Your task to perform on an android device: open app "Reddit" (install if not already installed) and enter user name: "issues@yahoo.com" and password: "belt" Image 0: 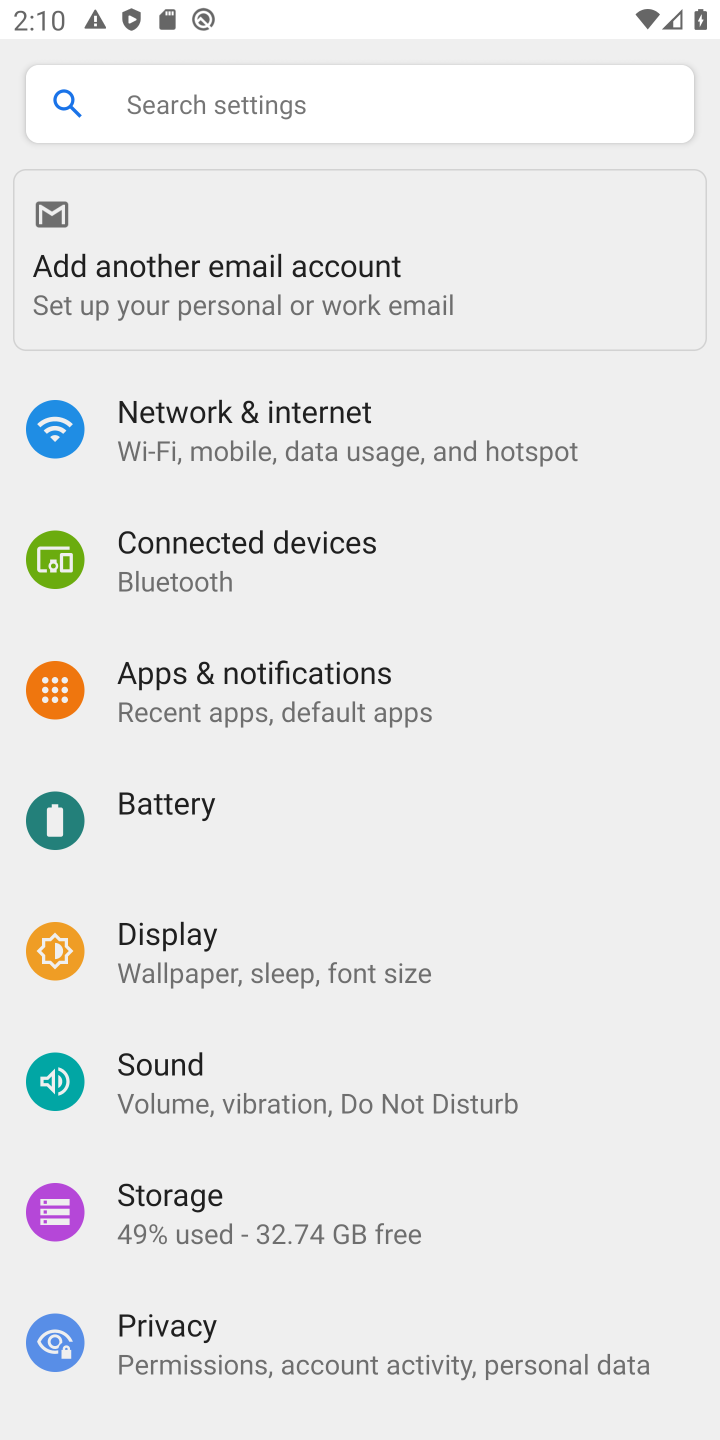
Step 0: press home button
Your task to perform on an android device: open app "Reddit" (install if not already installed) and enter user name: "issues@yahoo.com" and password: "belt" Image 1: 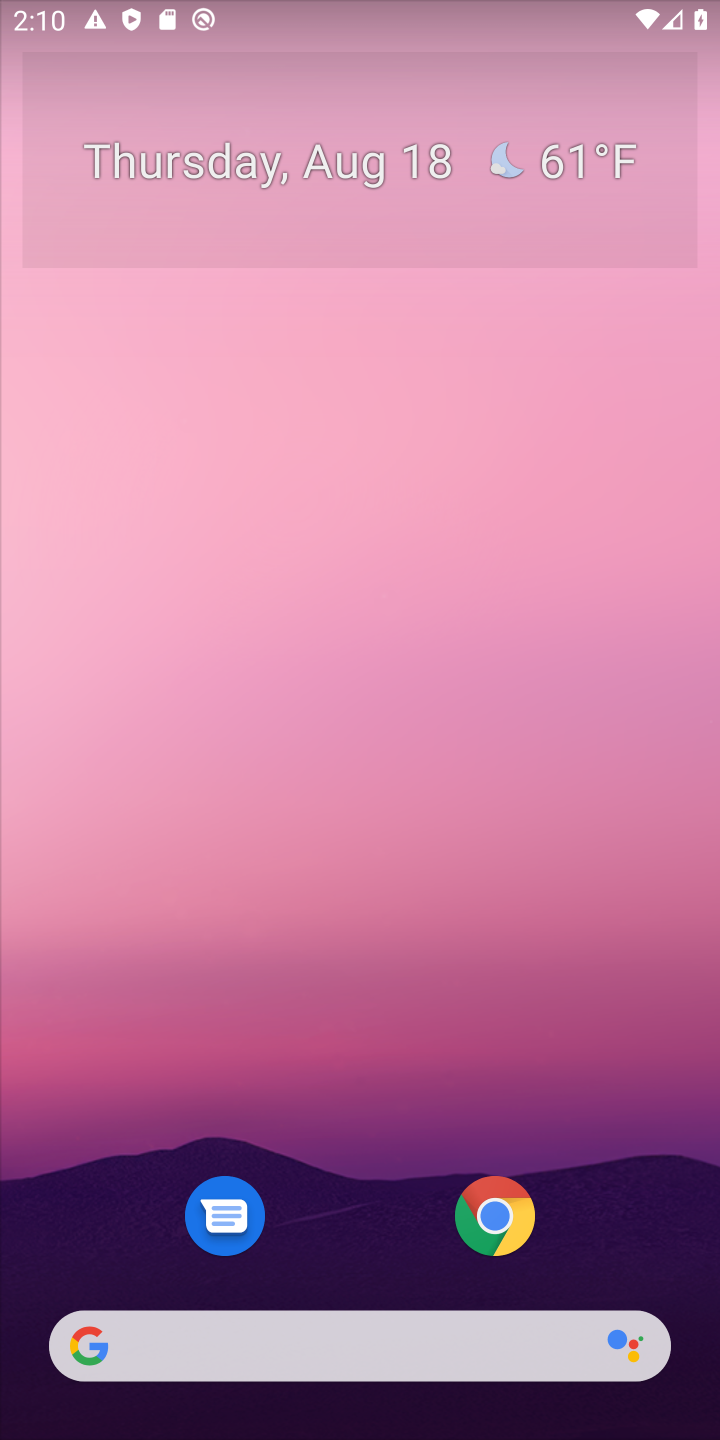
Step 1: drag from (575, 1042) to (568, 226)
Your task to perform on an android device: open app "Reddit" (install if not already installed) and enter user name: "issues@yahoo.com" and password: "belt" Image 2: 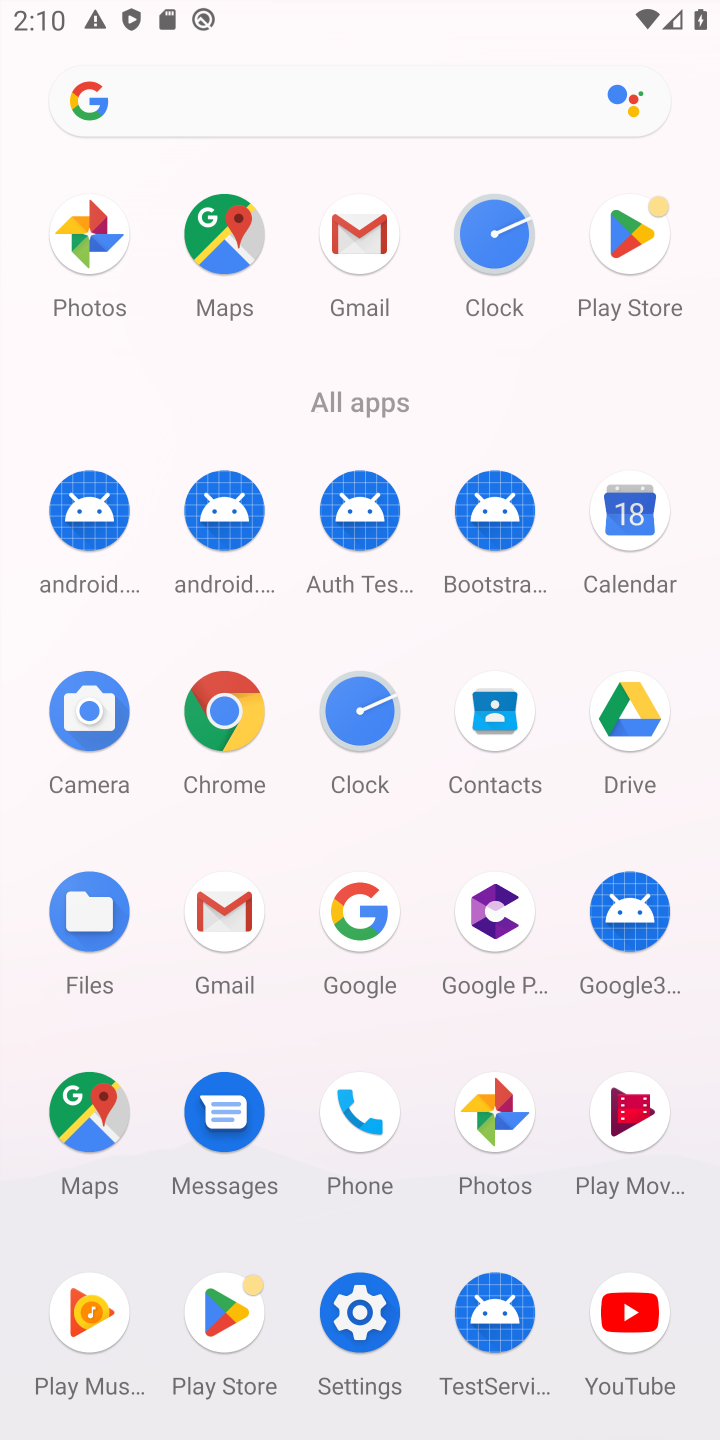
Step 2: click (85, 1316)
Your task to perform on an android device: open app "Reddit" (install if not already installed) and enter user name: "issues@yahoo.com" and password: "belt" Image 3: 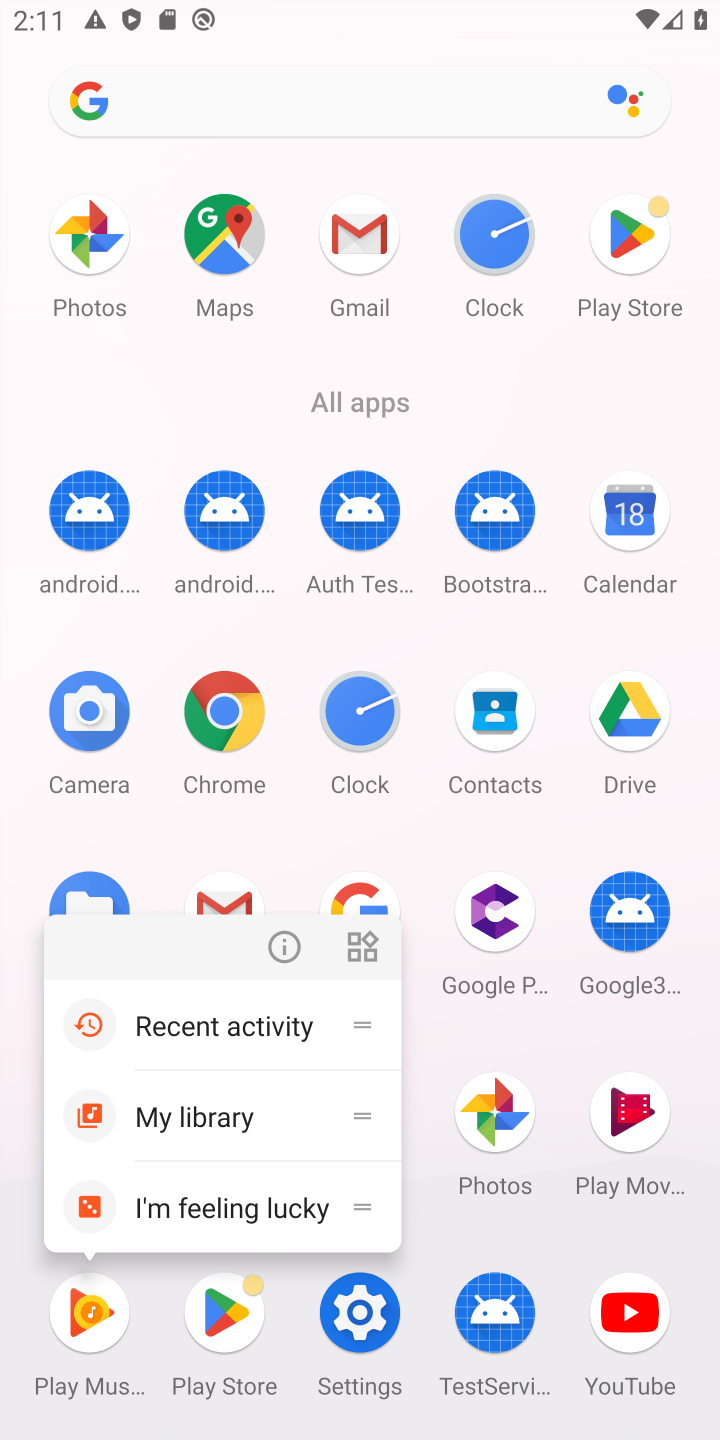
Step 3: click (231, 1317)
Your task to perform on an android device: open app "Reddit" (install if not already installed) and enter user name: "issues@yahoo.com" and password: "belt" Image 4: 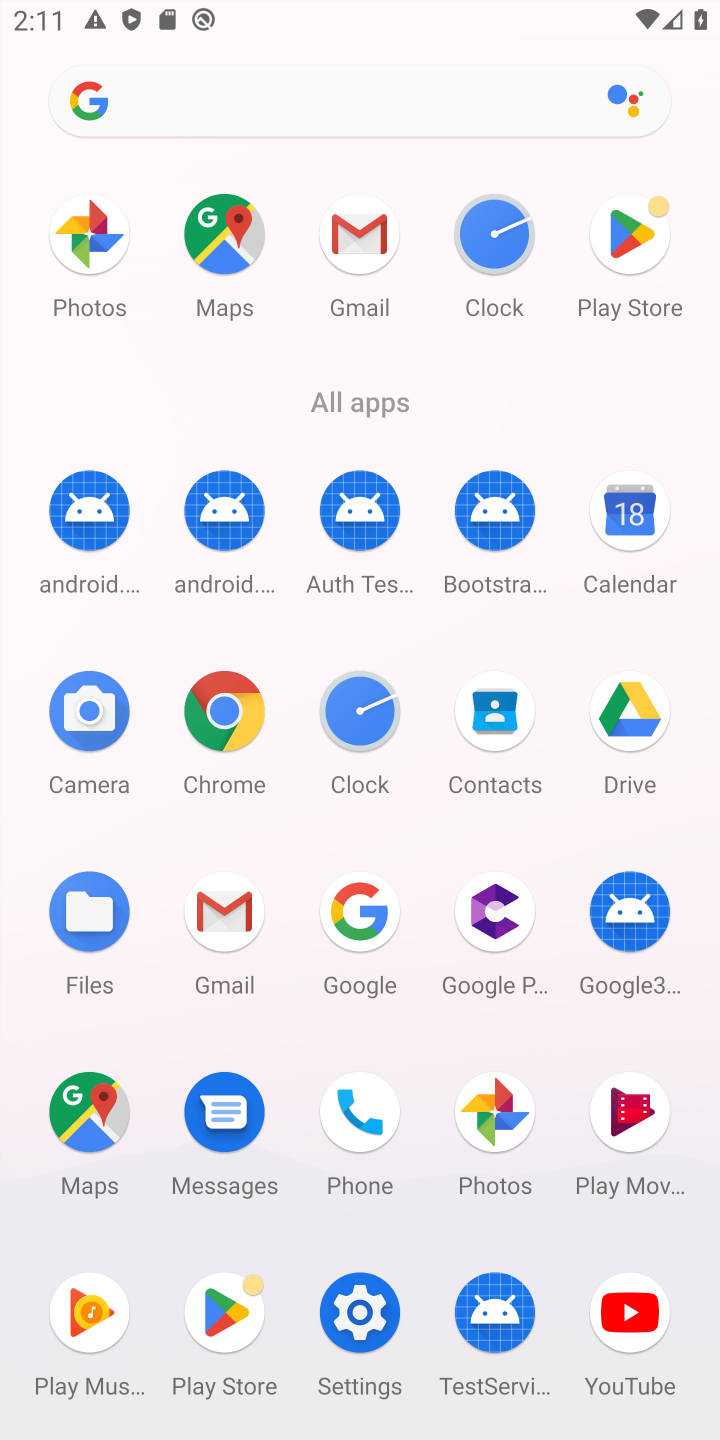
Step 4: click (227, 1308)
Your task to perform on an android device: open app "Reddit" (install if not already installed) and enter user name: "issues@yahoo.com" and password: "belt" Image 5: 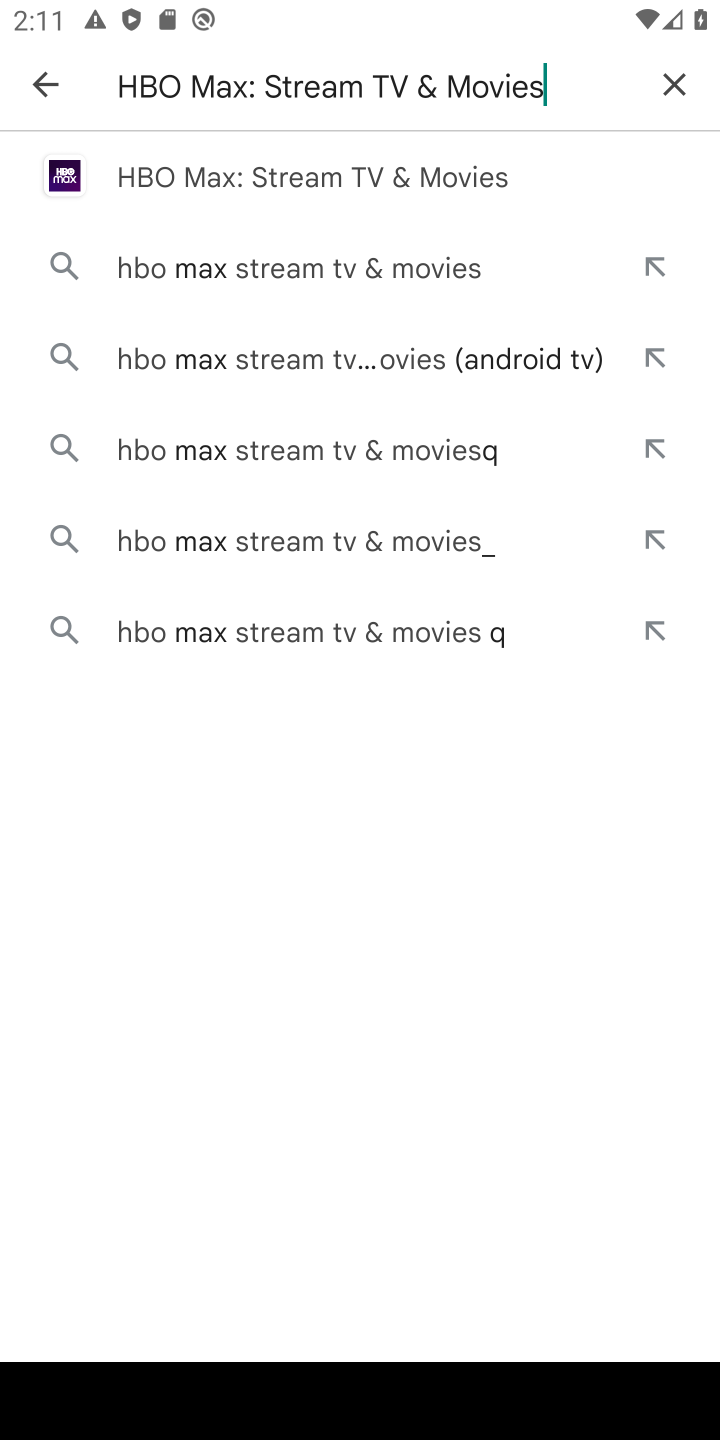
Step 5: click (673, 75)
Your task to perform on an android device: open app "Reddit" (install if not already installed) and enter user name: "issues@yahoo.com" and password: "belt" Image 6: 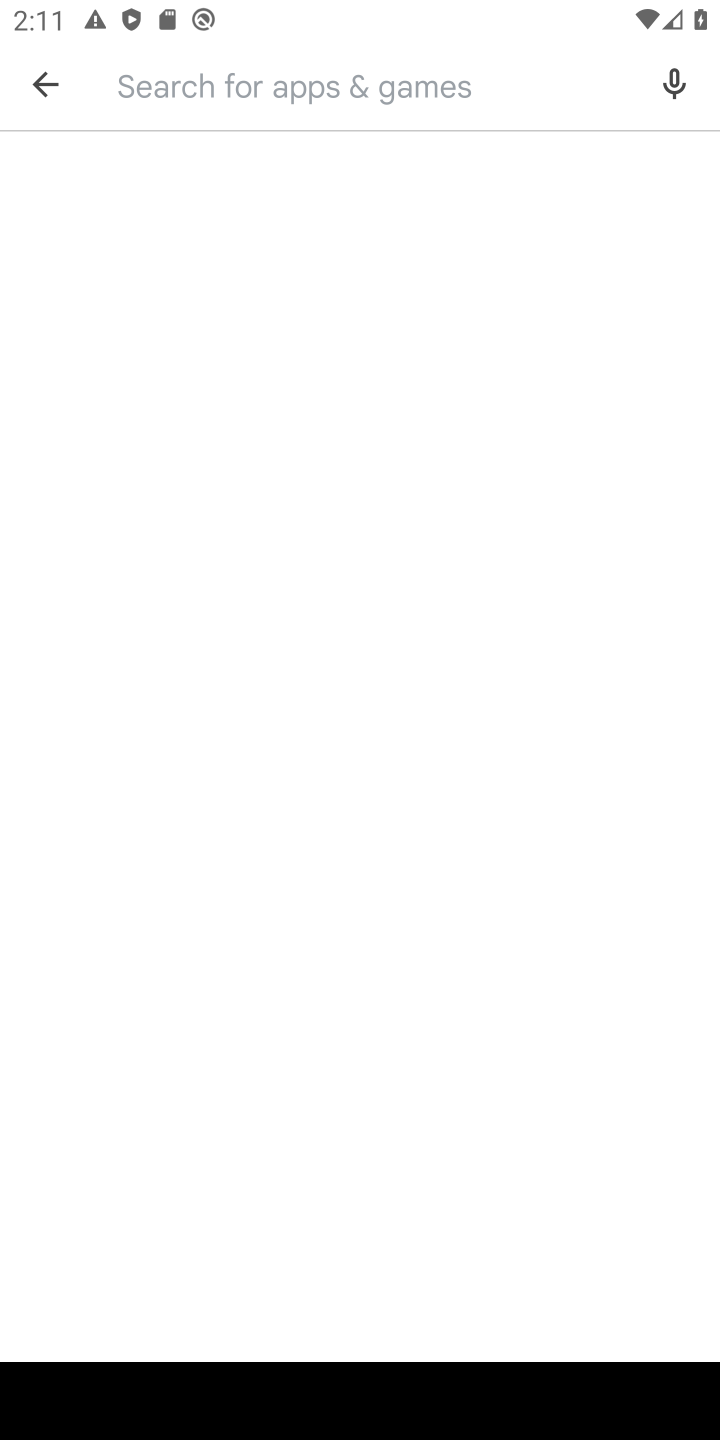
Step 6: type "Reddit"
Your task to perform on an android device: open app "Reddit" (install if not already installed) and enter user name: "issues@yahoo.com" and password: "belt" Image 7: 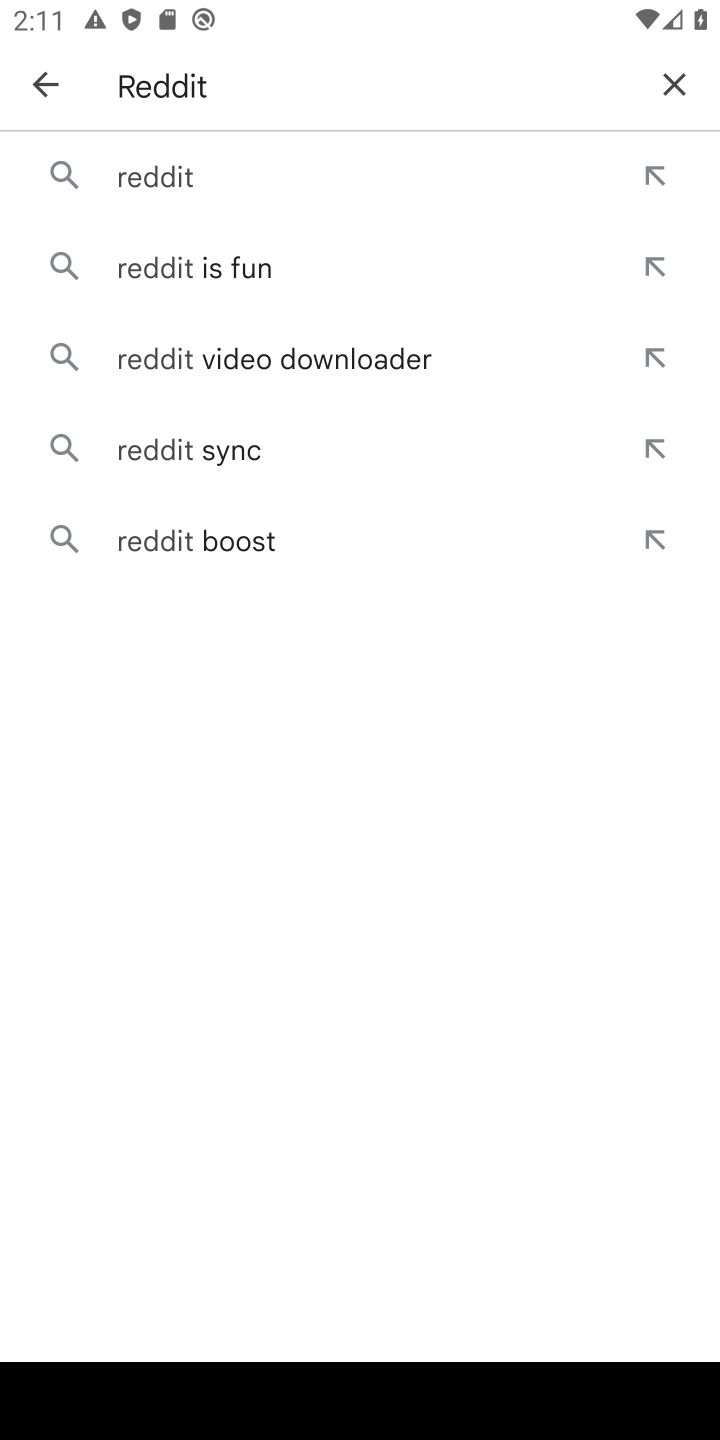
Step 7: click (162, 178)
Your task to perform on an android device: open app "Reddit" (install if not already installed) and enter user name: "issues@yahoo.com" and password: "belt" Image 8: 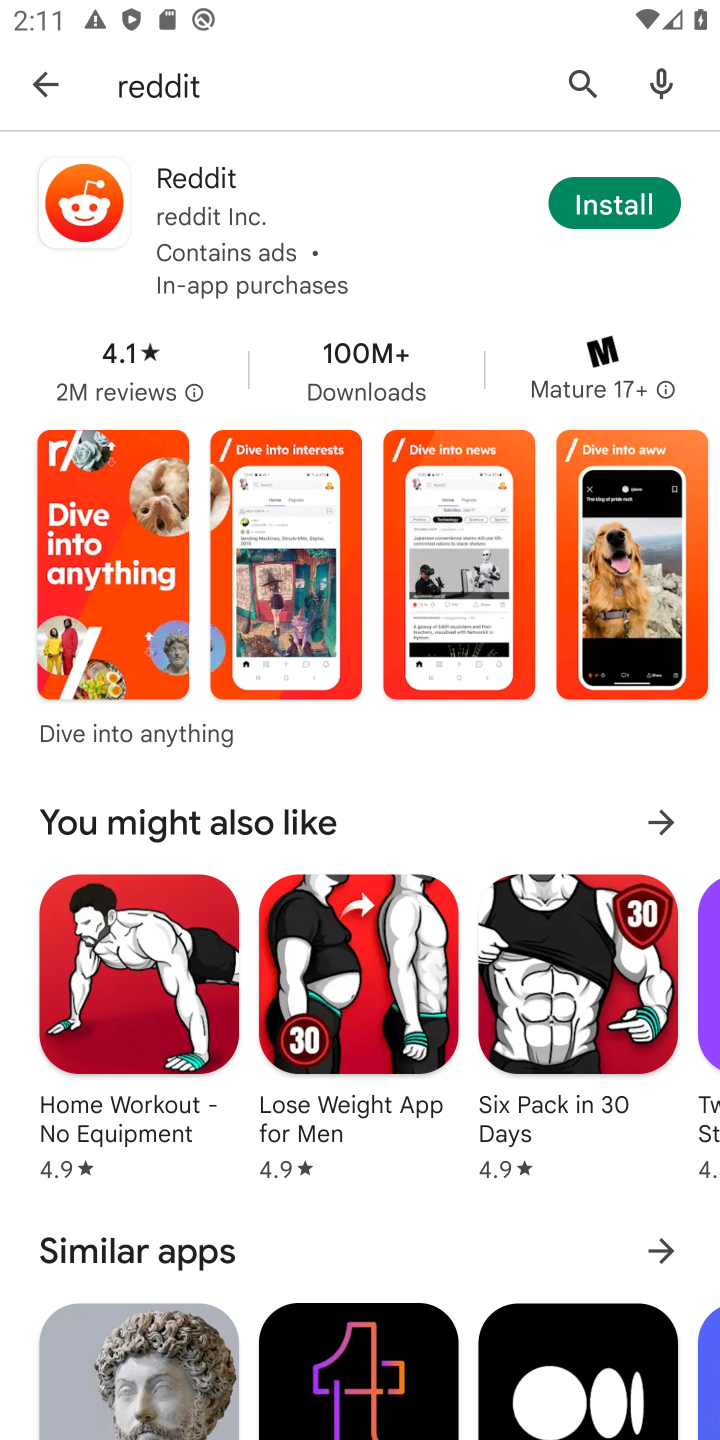
Step 8: click (613, 197)
Your task to perform on an android device: open app "Reddit" (install if not already installed) and enter user name: "issues@yahoo.com" and password: "belt" Image 9: 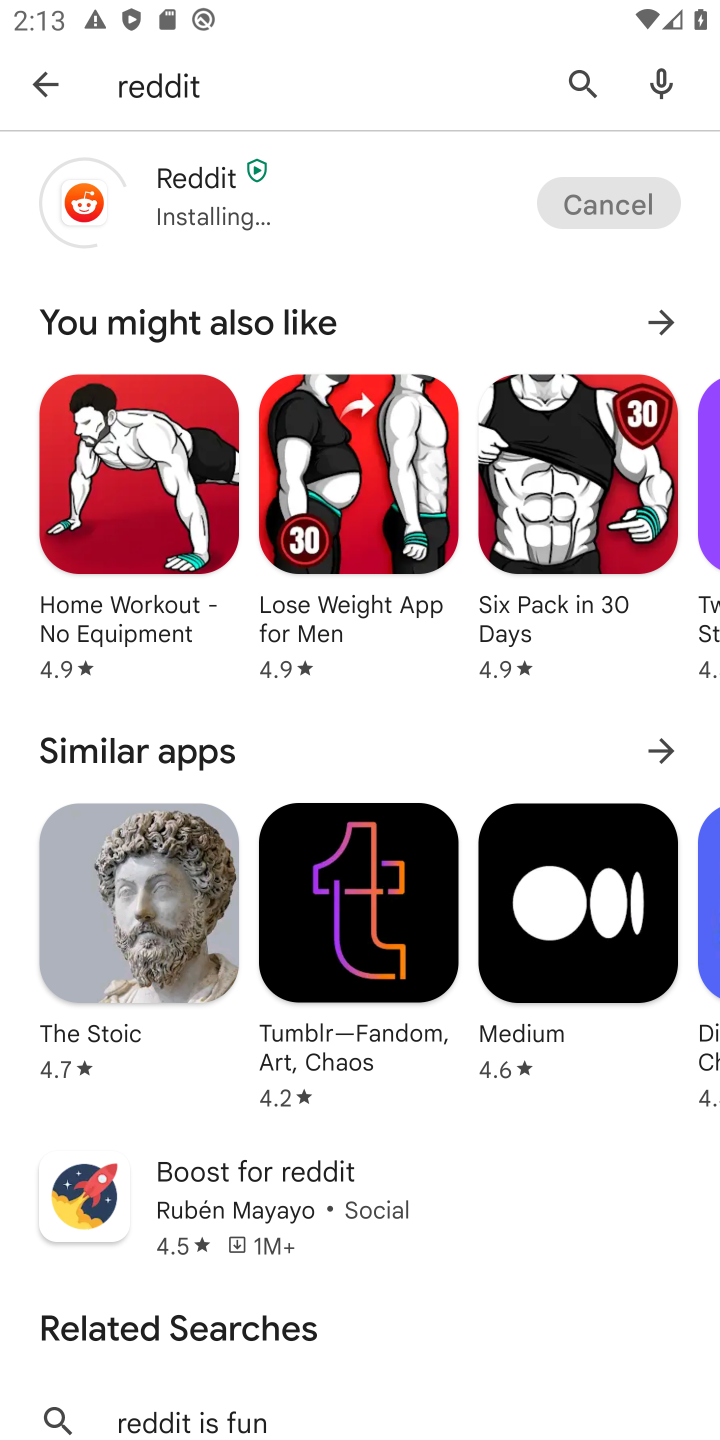
Step 9: drag from (361, 966) to (447, 229)
Your task to perform on an android device: open app "Reddit" (install if not already installed) and enter user name: "issues@yahoo.com" and password: "belt" Image 10: 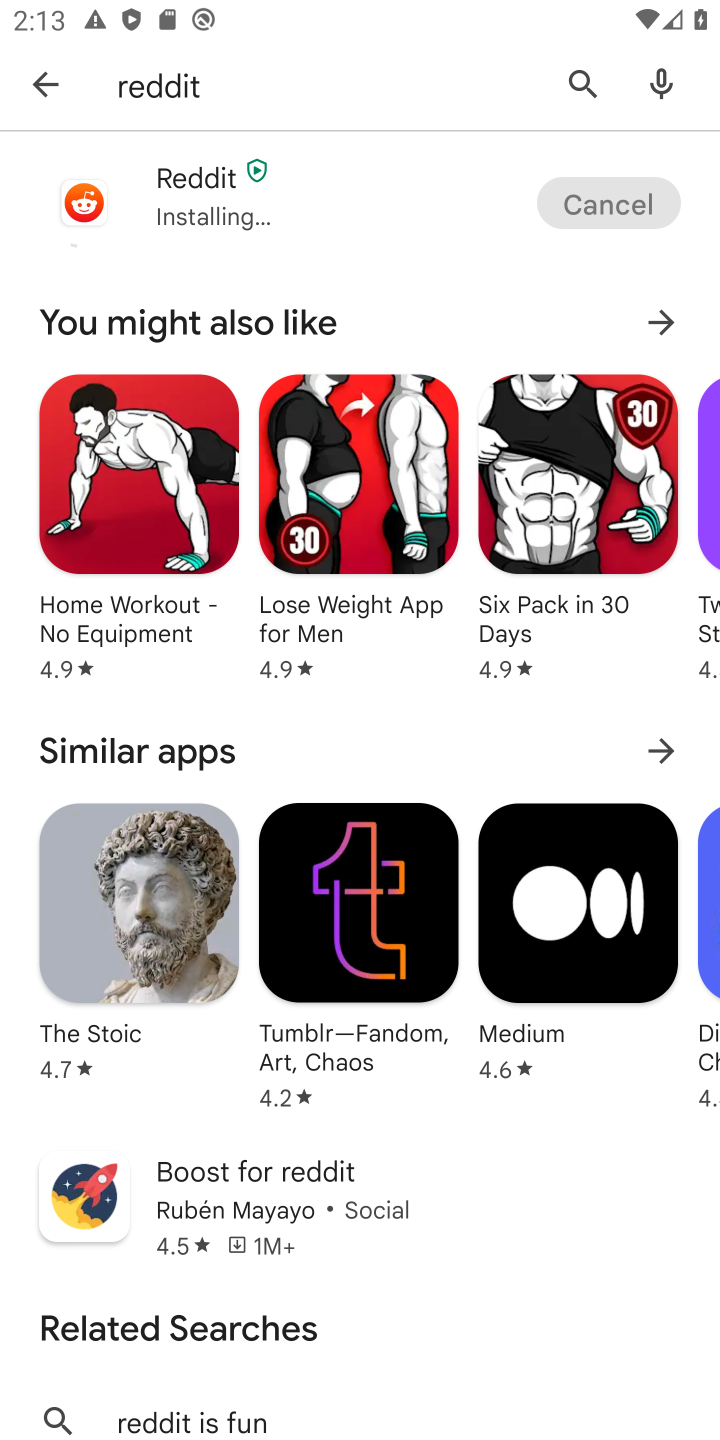
Step 10: click (188, 175)
Your task to perform on an android device: open app "Reddit" (install if not already installed) and enter user name: "issues@yahoo.com" and password: "belt" Image 11: 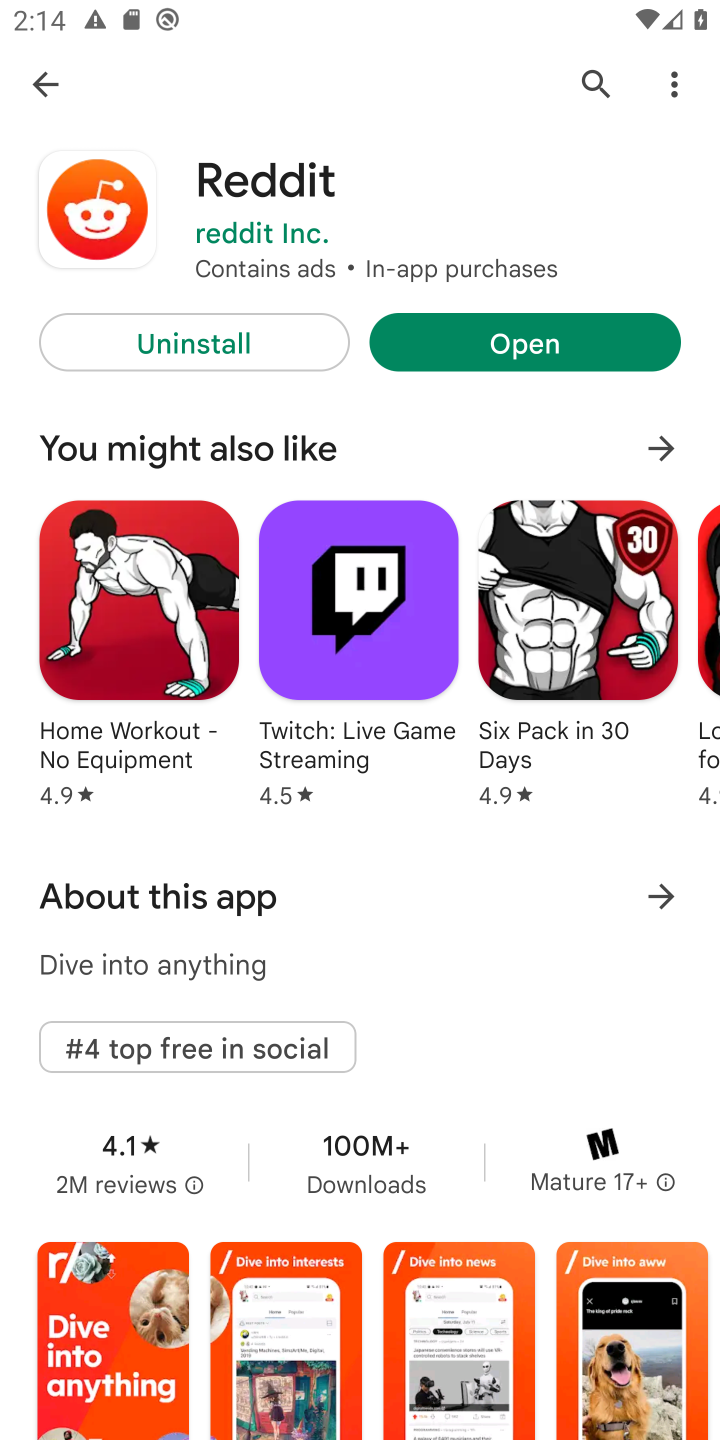
Step 11: click (504, 354)
Your task to perform on an android device: open app "Reddit" (install if not already installed) and enter user name: "issues@yahoo.com" and password: "belt" Image 12: 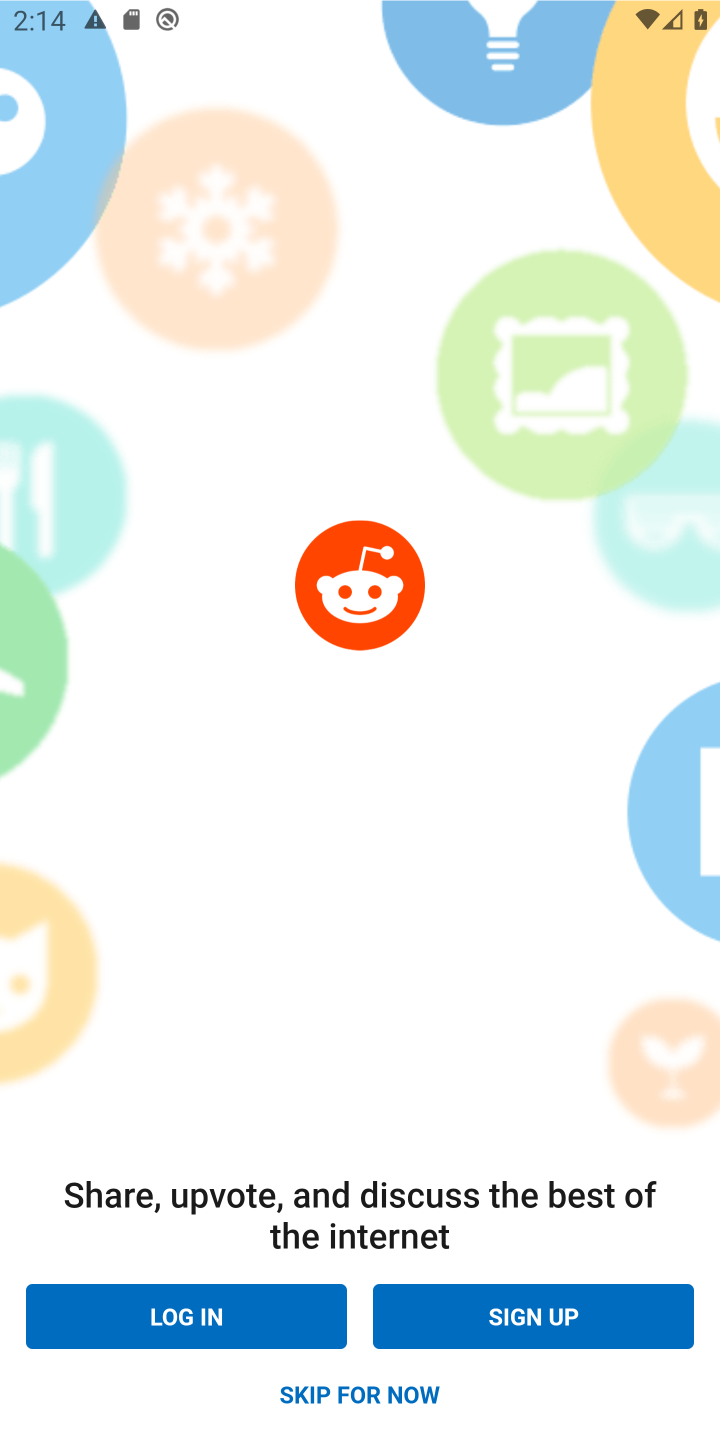
Step 12: click (172, 1310)
Your task to perform on an android device: open app "Reddit" (install if not already installed) and enter user name: "issues@yahoo.com" and password: "belt" Image 13: 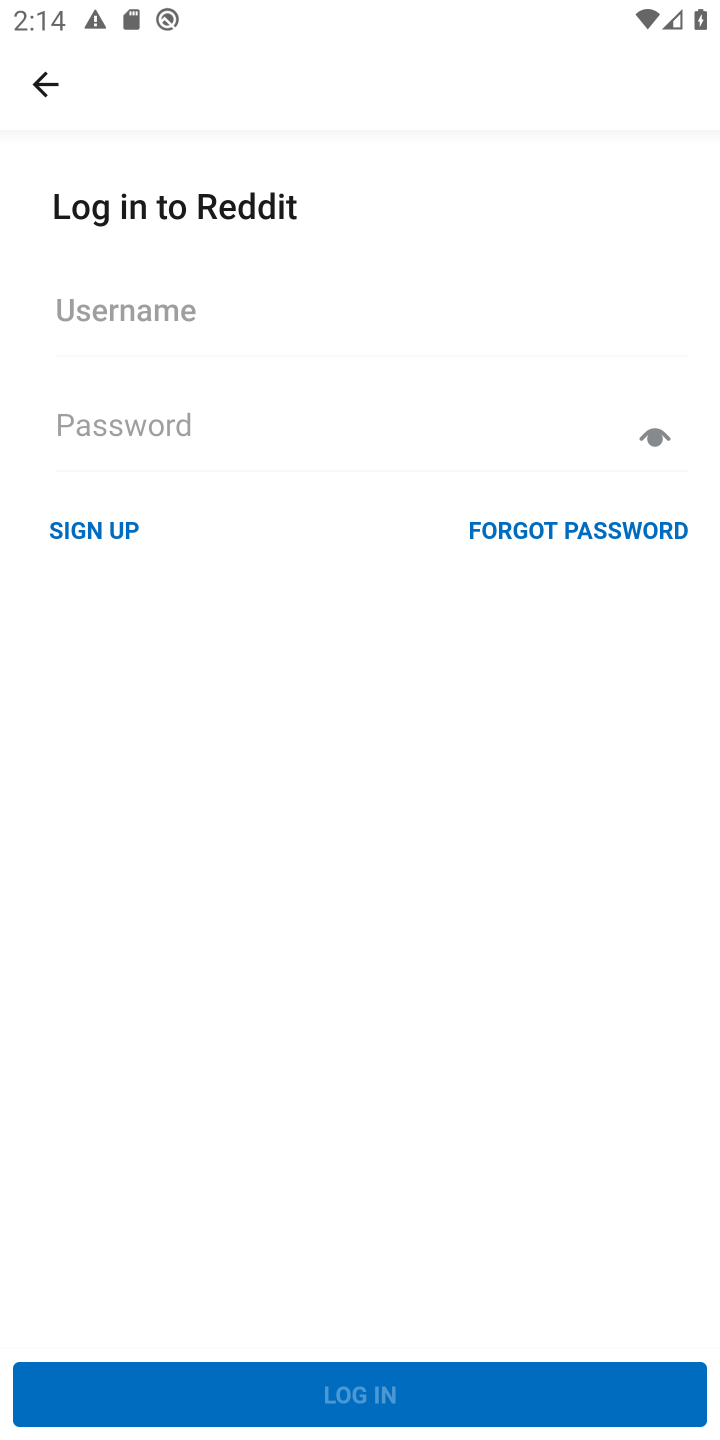
Step 13: click (187, 306)
Your task to perform on an android device: open app "Reddit" (install if not already installed) and enter user name: "issues@yahoo.com" and password: "belt" Image 14: 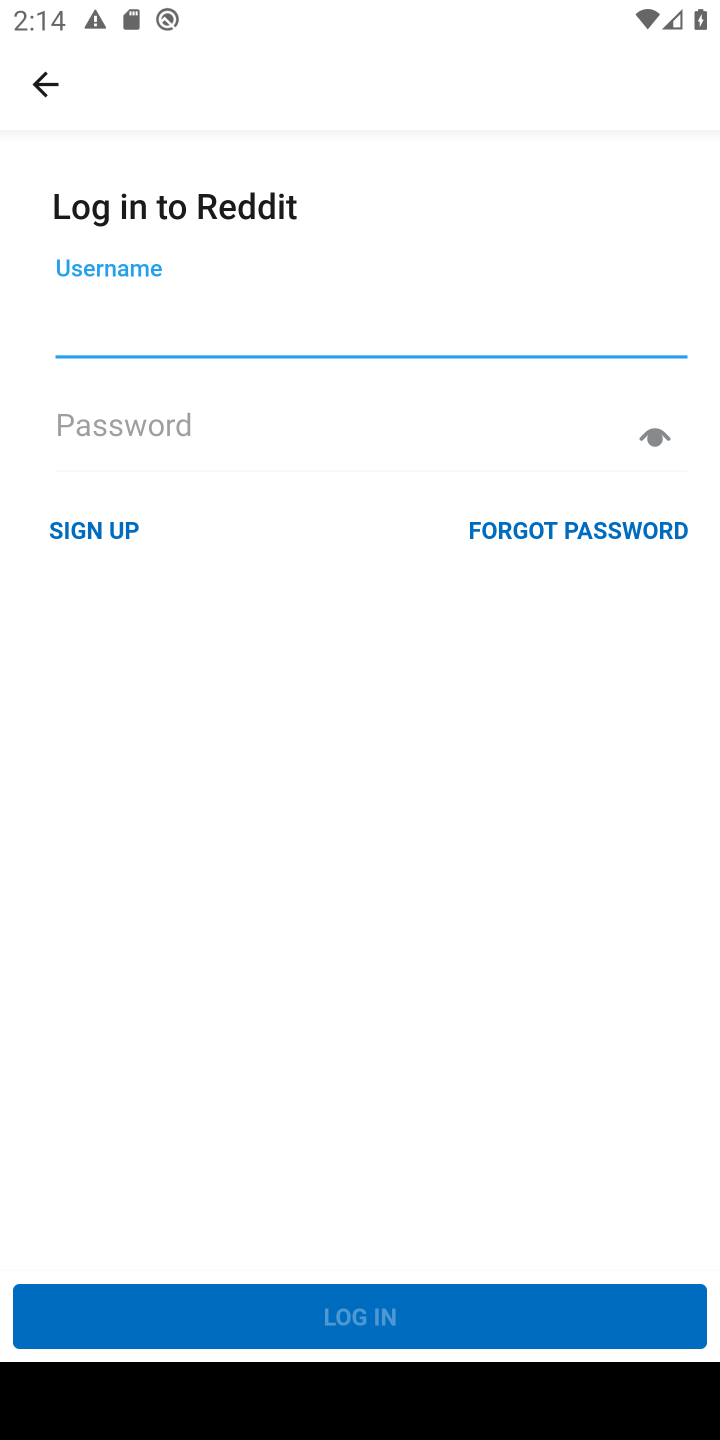
Step 14: type "issues@yahoo.com"
Your task to perform on an android device: open app "Reddit" (install if not already installed) and enter user name: "issues@yahoo.com" and password: "belt" Image 15: 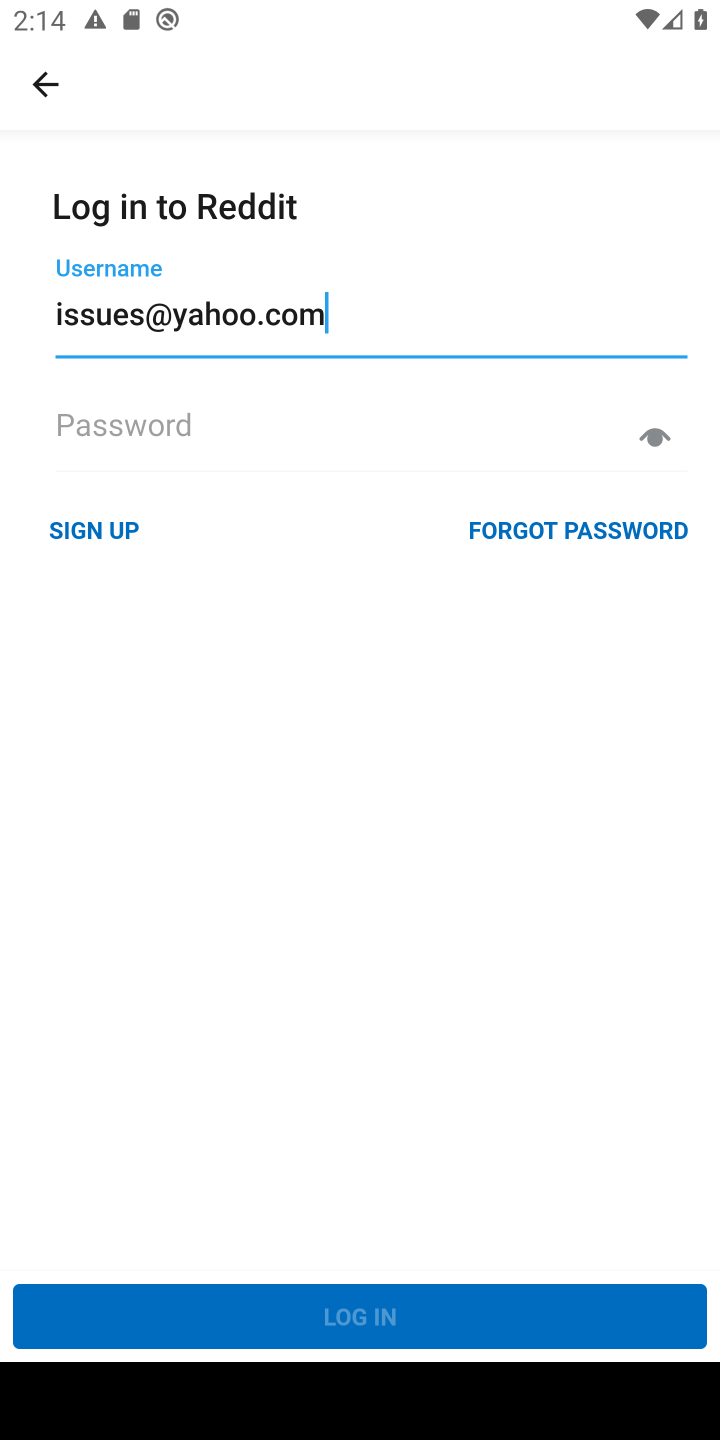
Step 15: click (161, 423)
Your task to perform on an android device: open app "Reddit" (install if not already installed) and enter user name: "issues@yahoo.com" and password: "belt" Image 16: 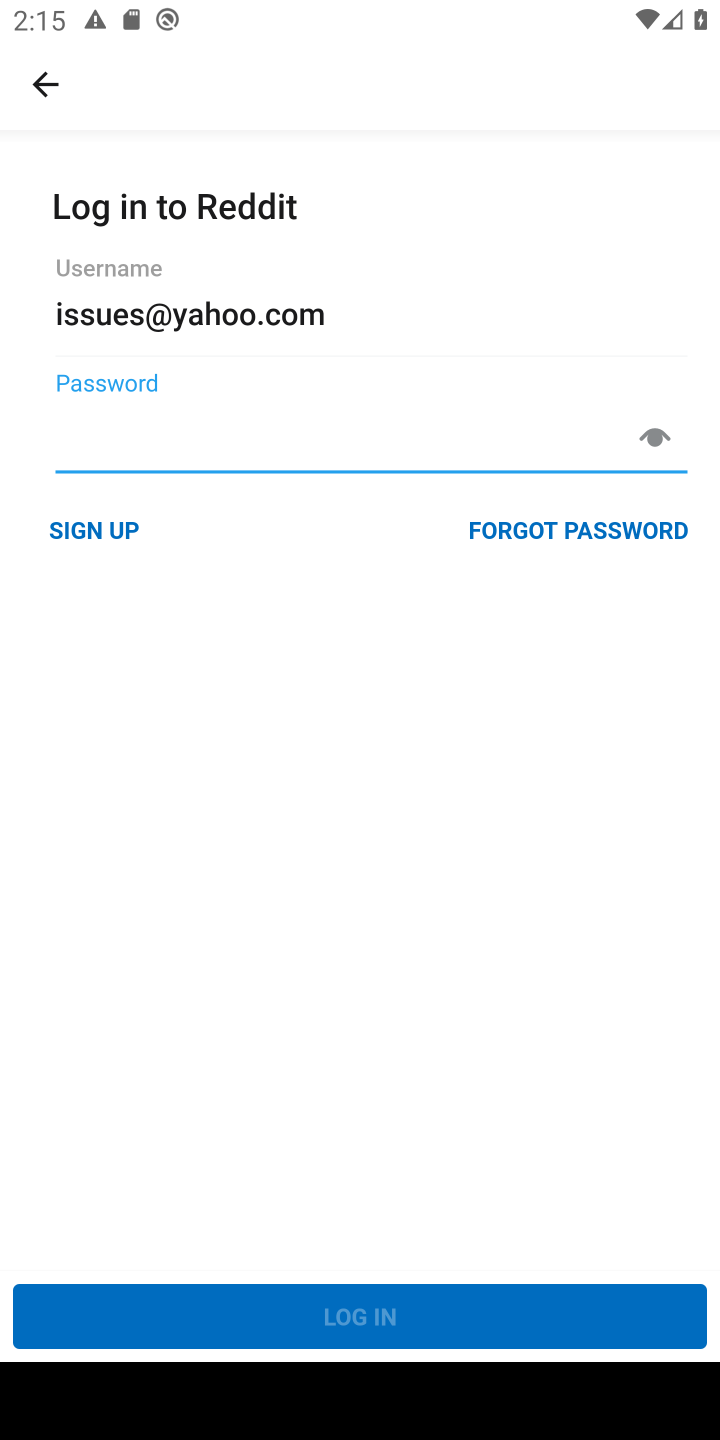
Step 16: type "belt"
Your task to perform on an android device: open app "Reddit" (install if not already installed) and enter user name: "issues@yahoo.com" and password: "belt" Image 17: 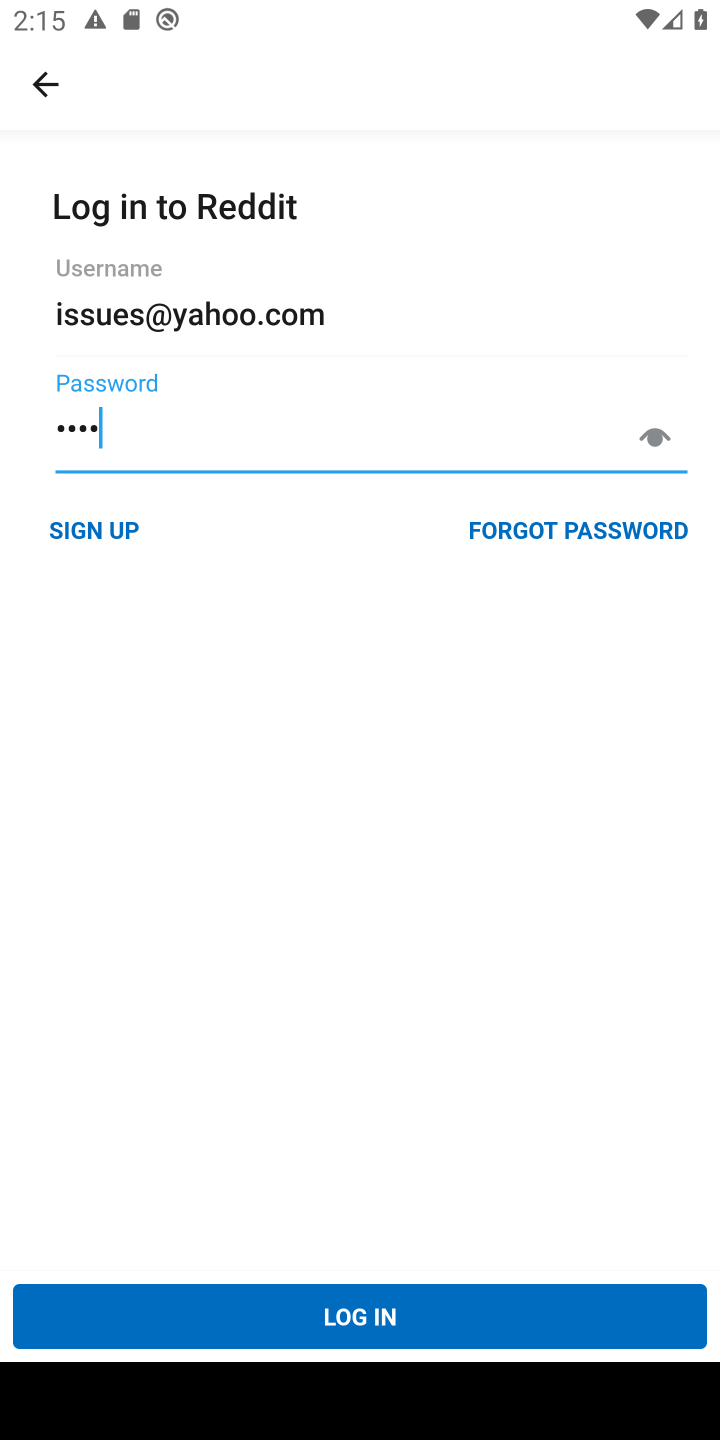
Step 17: task complete